Your task to perform on an android device: open chrome and create a bookmark for the current page Image 0: 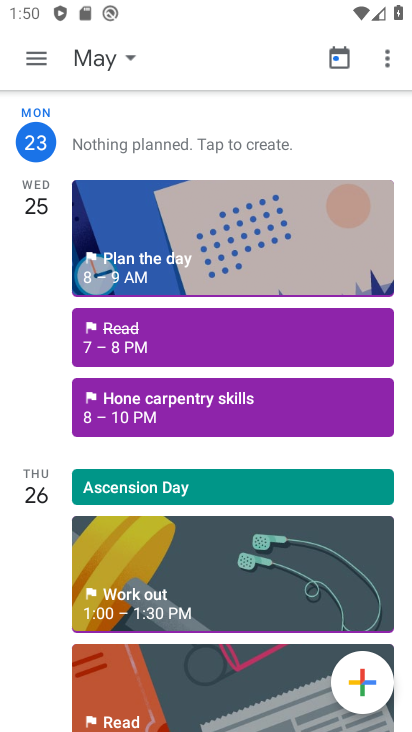
Step 0: press home button
Your task to perform on an android device: open chrome and create a bookmark for the current page Image 1: 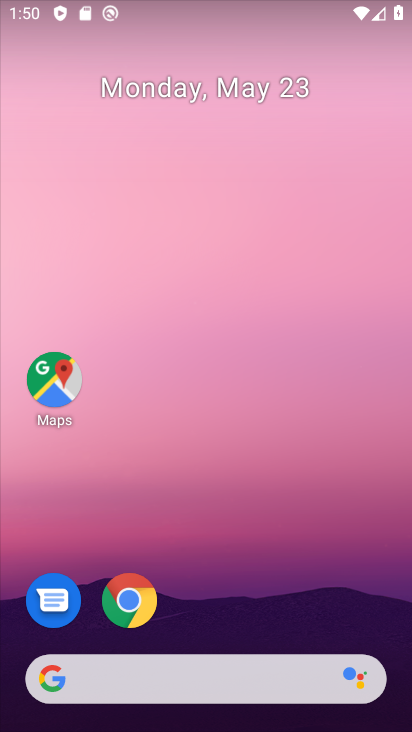
Step 1: click (148, 599)
Your task to perform on an android device: open chrome and create a bookmark for the current page Image 2: 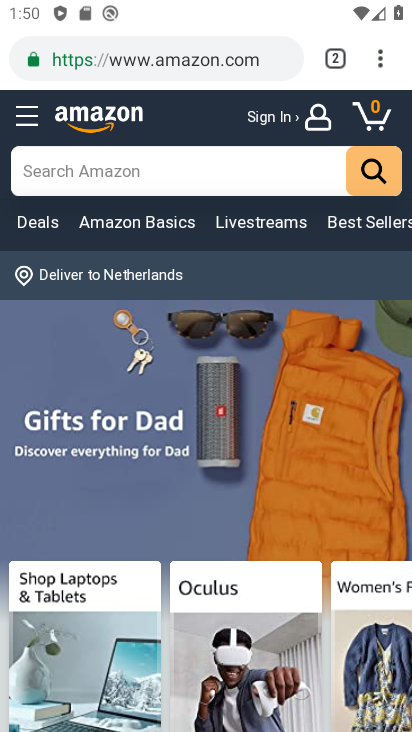
Step 2: click (376, 74)
Your task to perform on an android device: open chrome and create a bookmark for the current page Image 3: 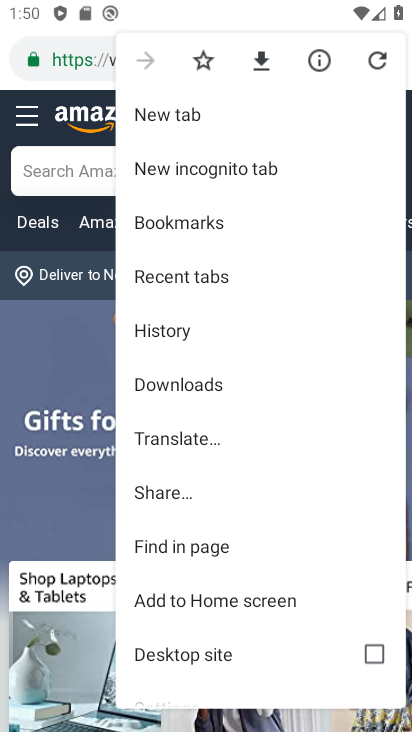
Step 3: click (205, 59)
Your task to perform on an android device: open chrome and create a bookmark for the current page Image 4: 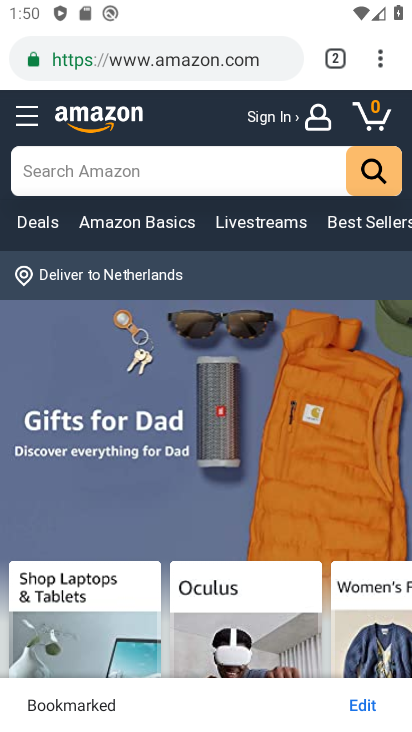
Step 4: task complete